Your task to perform on an android device: set the timer Image 0: 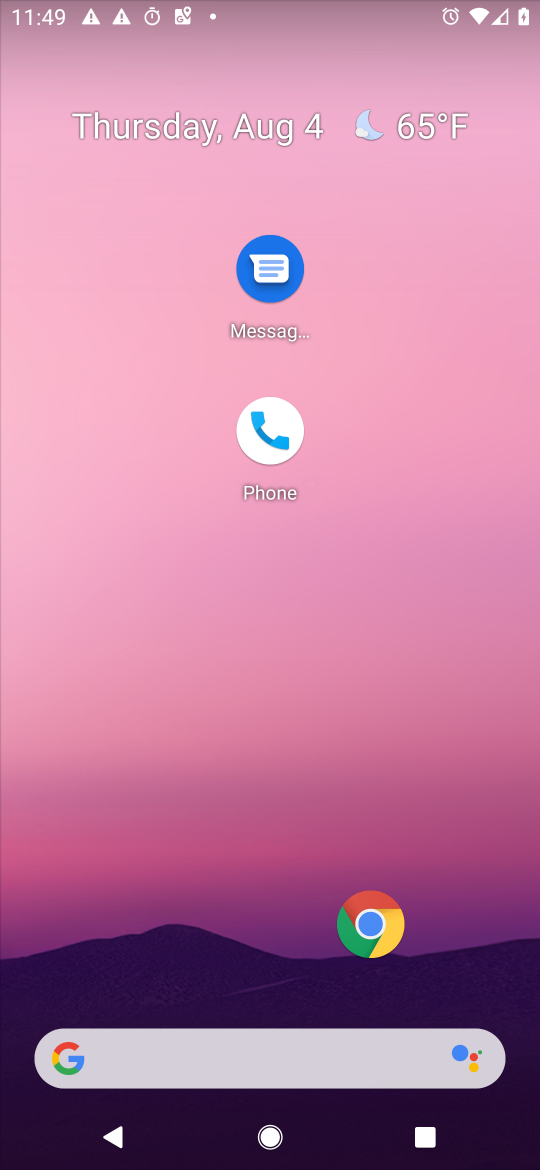
Step 0: drag from (316, 940) to (384, 510)
Your task to perform on an android device: set the timer Image 1: 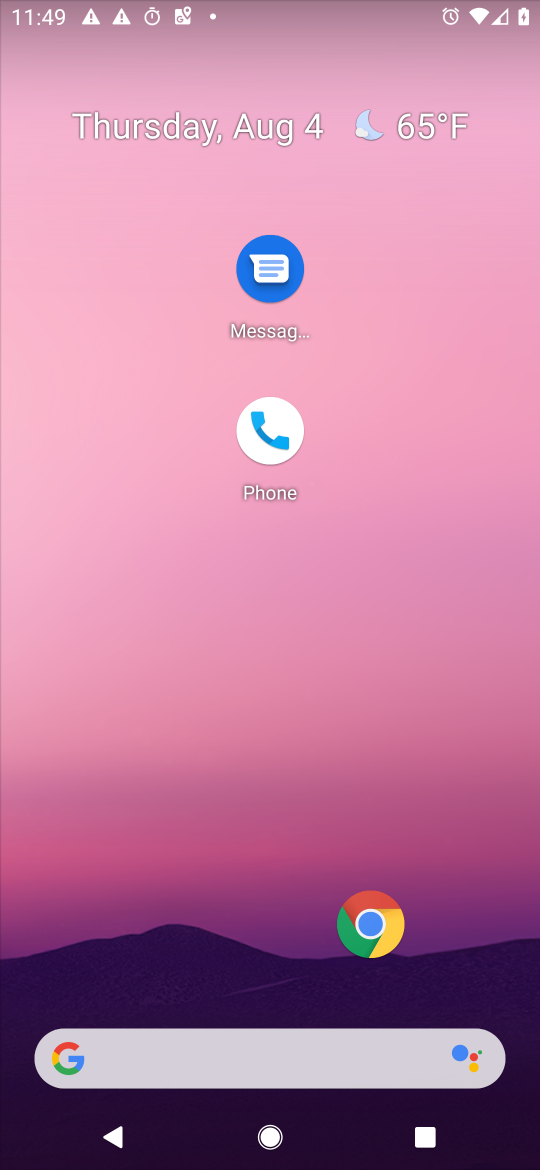
Step 1: drag from (271, 896) to (343, 369)
Your task to perform on an android device: set the timer Image 2: 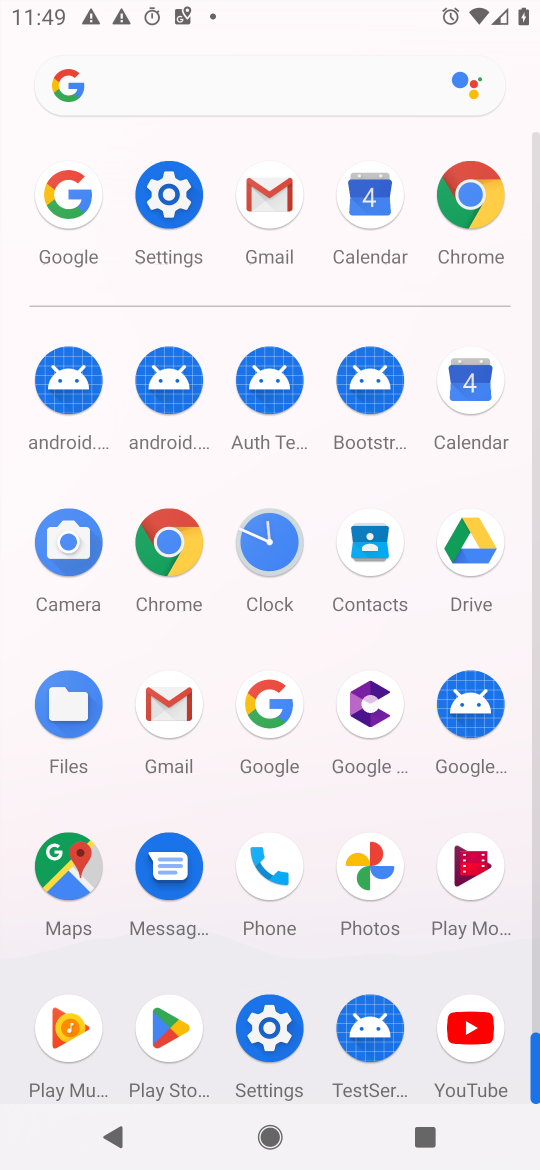
Step 2: click (262, 559)
Your task to perform on an android device: set the timer Image 3: 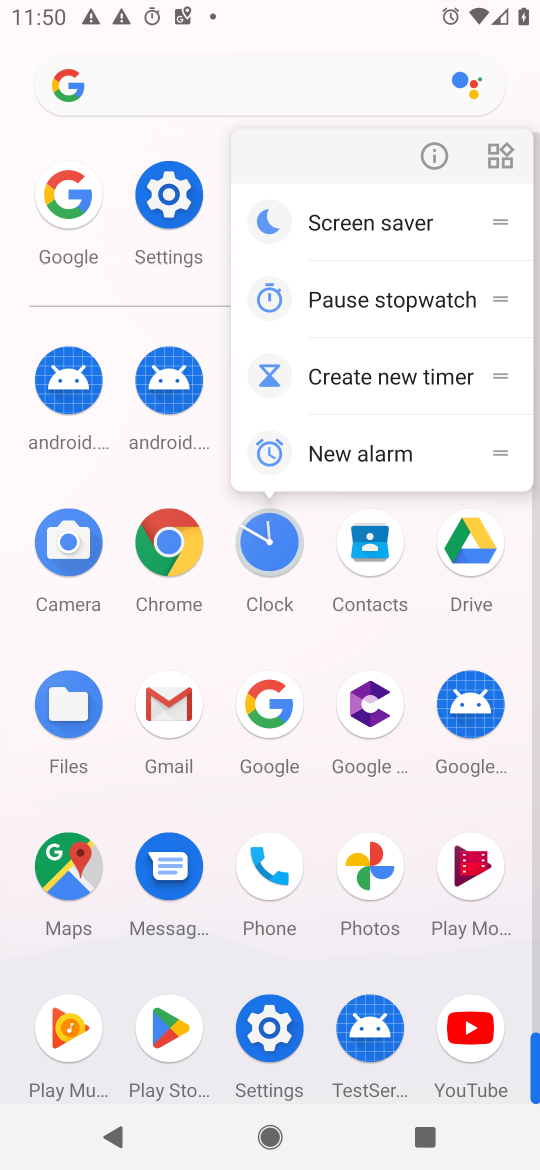
Step 3: click (437, 158)
Your task to perform on an android device: set the timer Image 4: 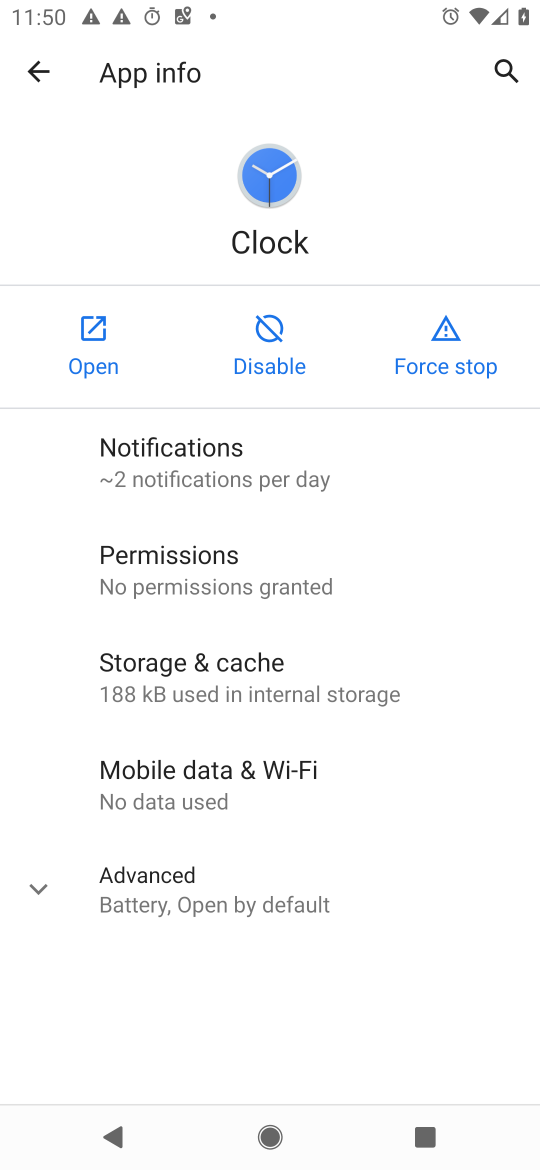
Step 4: click (97, 334)
Your task to perform on an android device: set the timer Image 5: 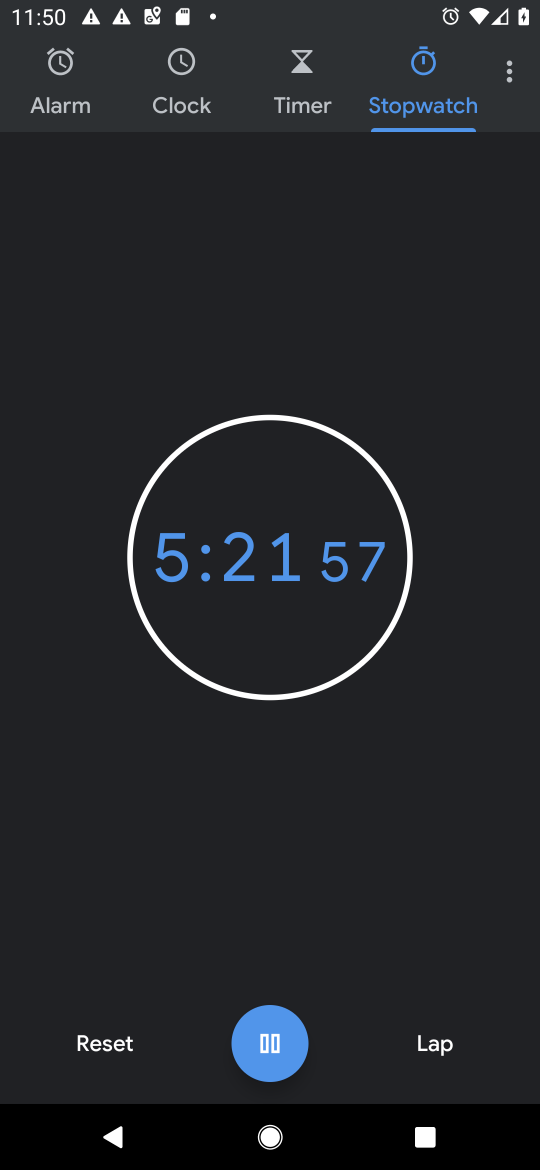
Step 5: click (331, 118)
Your task to perform on an android device: set the timer Image 6: 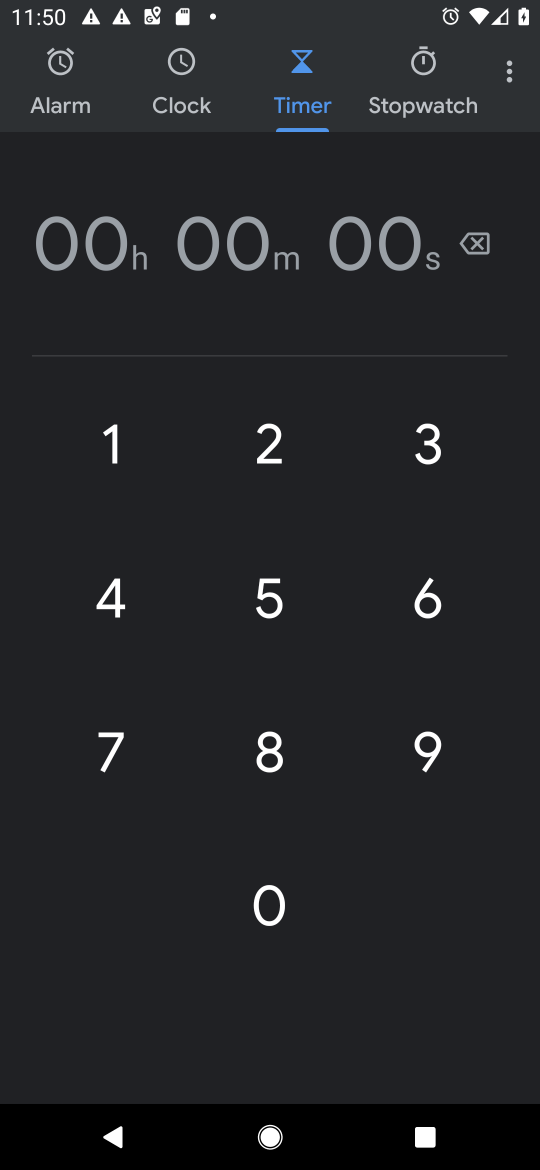
Step 6: click (270, 440)
Your task to perform on an android device: set the timer Image 7: 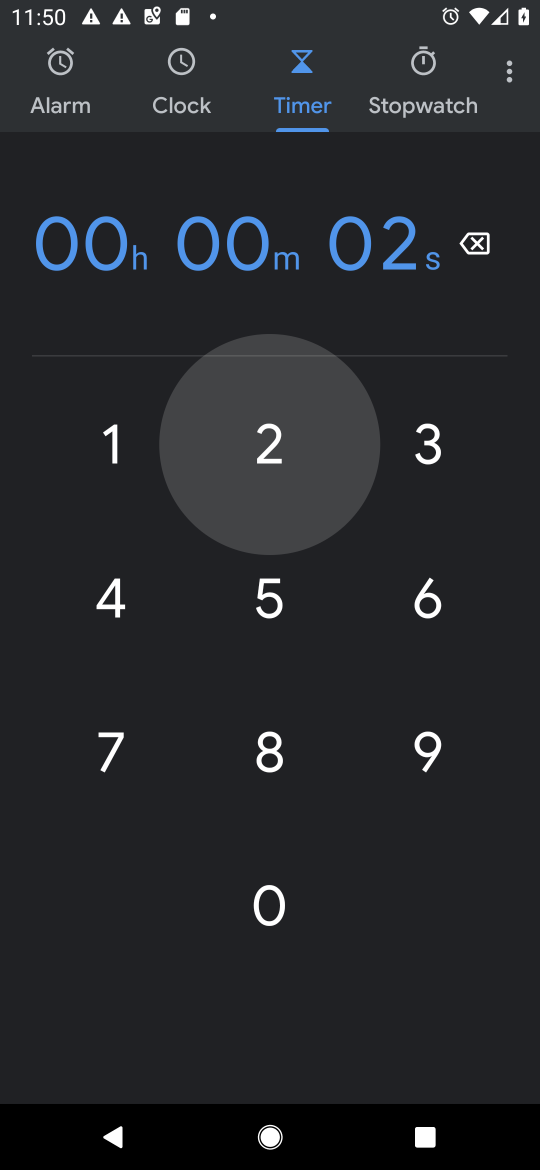
Step 7: click (455, 461)
Your task to perform on an android device: set the timer Image 8: 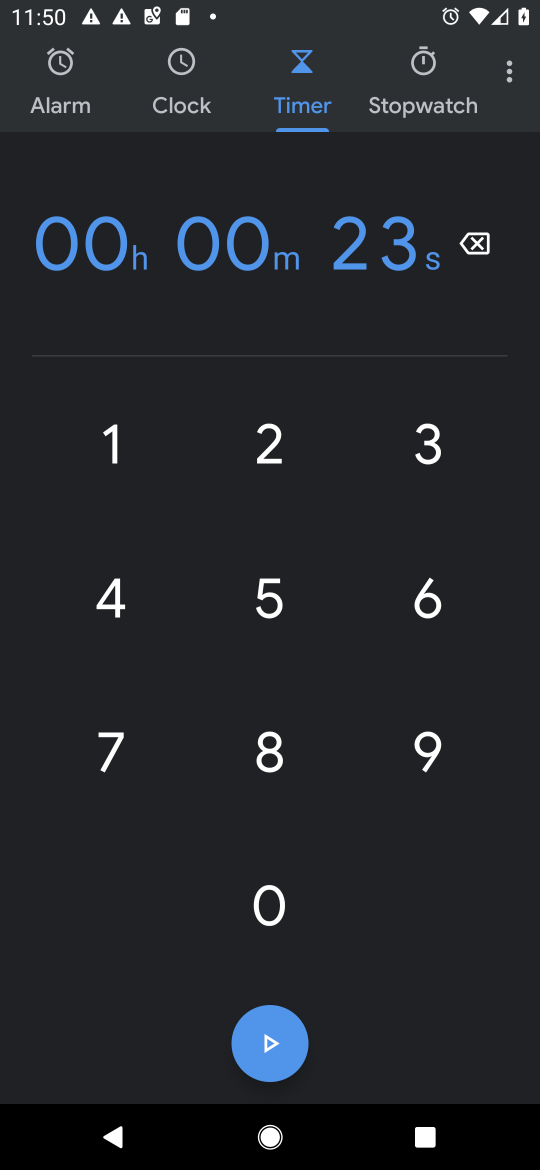
Step 8: click (271, 1021)
Your task to perform on an android device: set the timer Image 9: 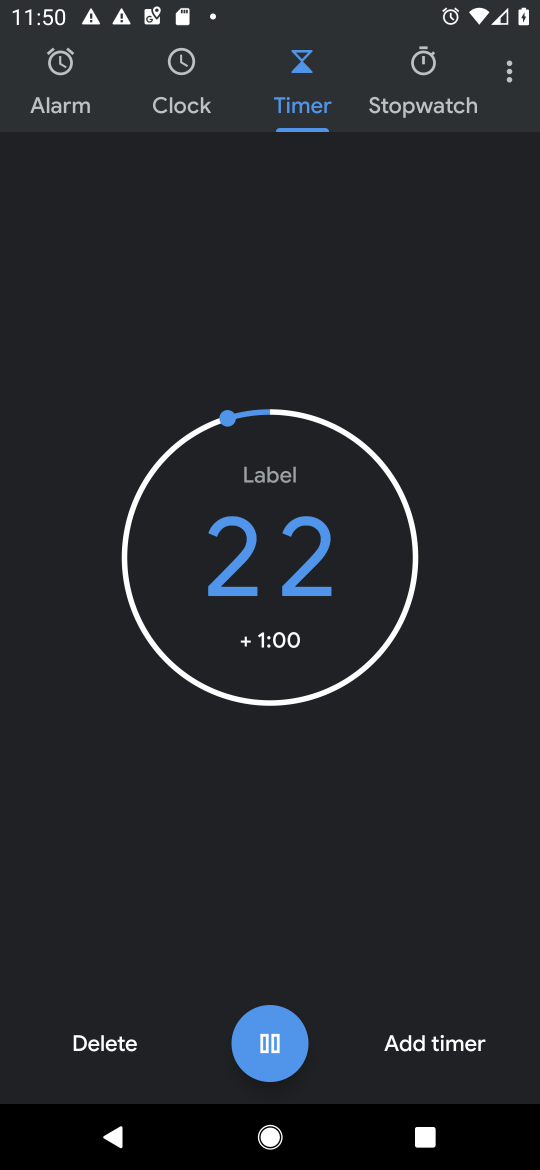
Step 9: task complete